Your task to perform on an android device: Go to Google Image 0: 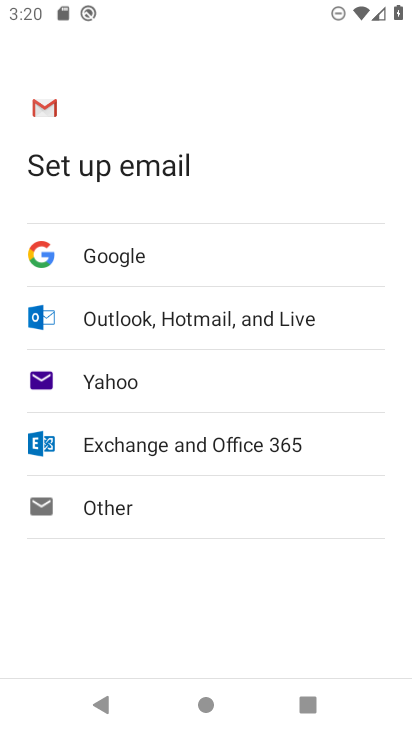
Step 0: press home button
Your task to perform on an android device: Go to Google Image 1: 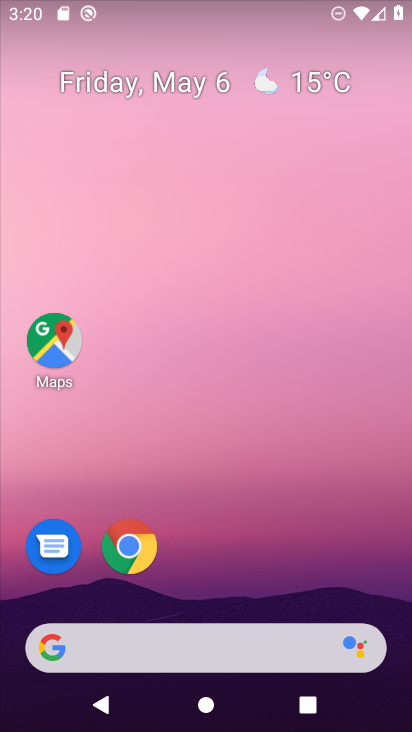
Step 1: drag from (187, 615) to (205, 309)
Your task to perform on an android device: Go to Google Image 2: 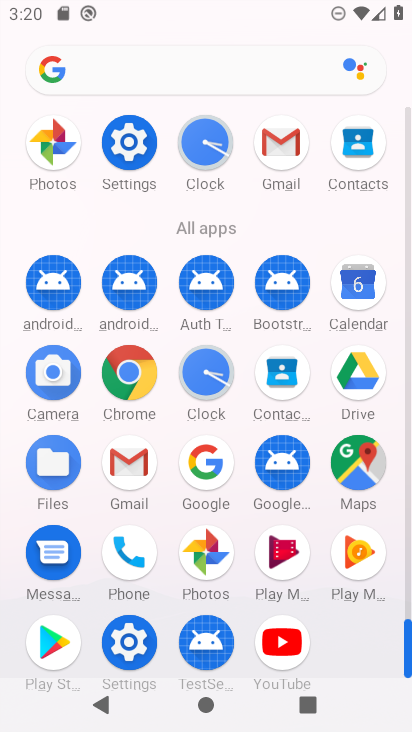
Step 2: click (205, 476)
Your task to perform on an android device: Go to Google Image 3: 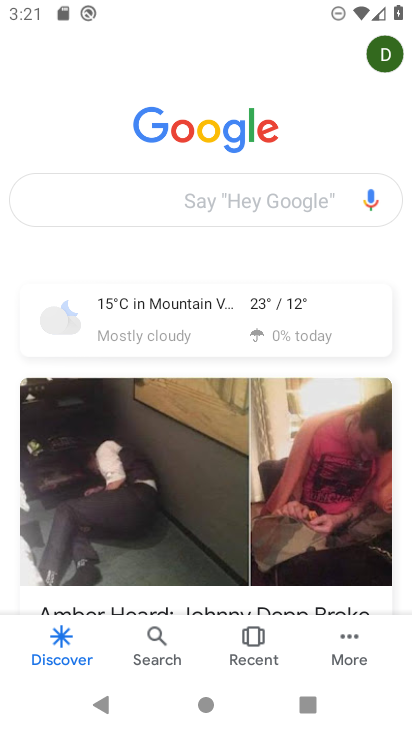
Step 3: task complete